Your task to perform on an android device: Go to Amazon Image 0: 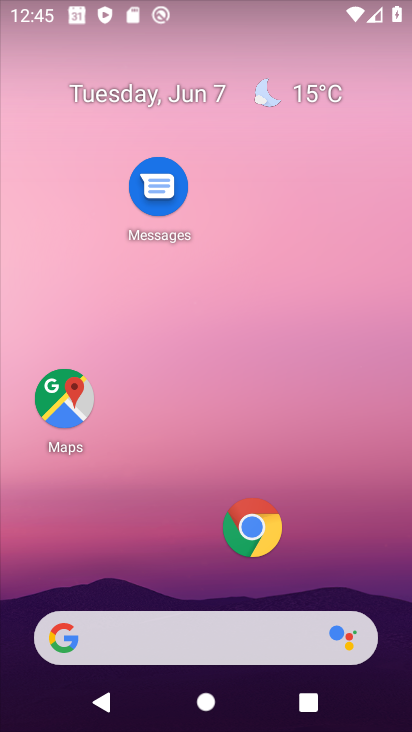
Step 0: drag from (195, 627) to (258, 273)
Your task to perform on an android device: Go to Amazon Image 1: 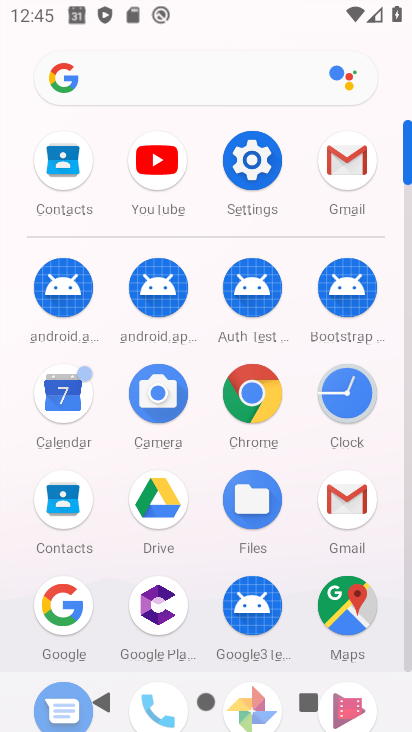
Step 1: click (63, 618)
Your task to perform on an android device: Go to Amazon Image 2: 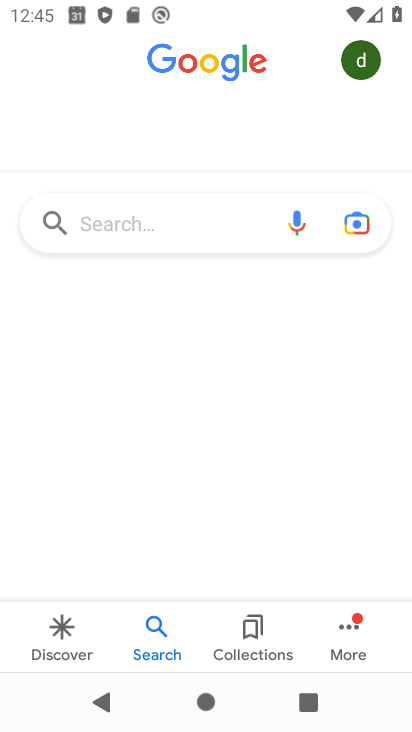
Step 2: click (111, 225)
Your task to perform on an android device: Go to Amazon Image 3: 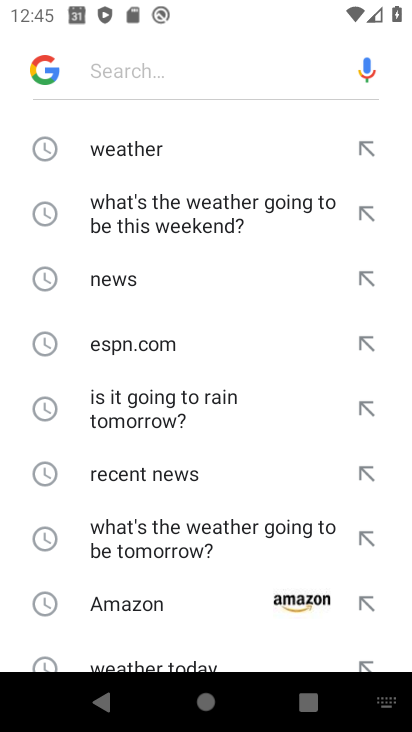
Step 3: drag from (157, 595) to (157, 263)
Your task to perform on an android device: Go to Amazon Image 4: 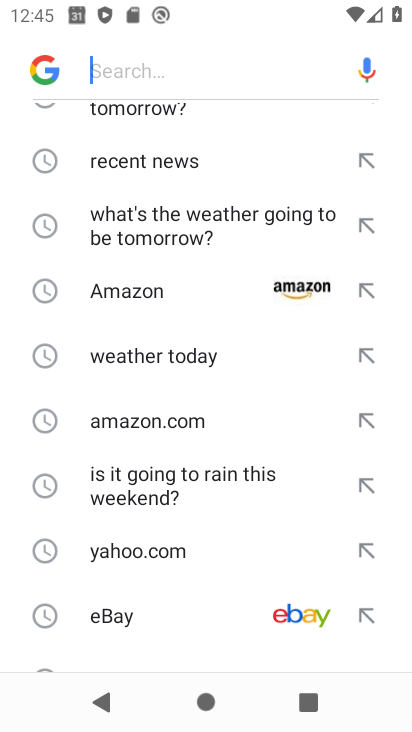
Step 4: click (154, 293)
Your task to perform on an android device: Go to Amazon Image 5: 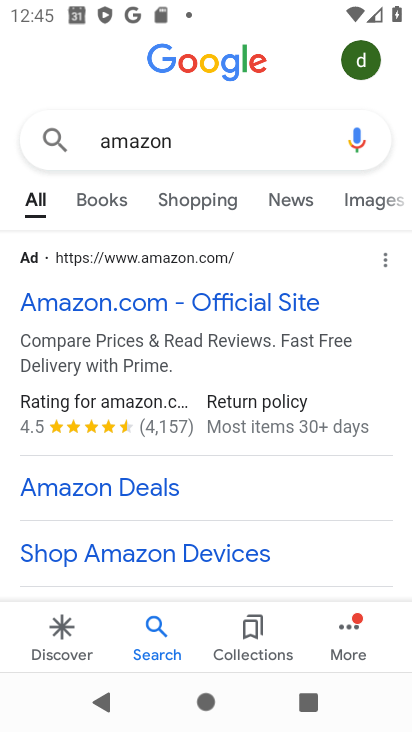
Step 5: task complete